Your task to perform on an android device: turn off javascript in the chrome app Image 0: 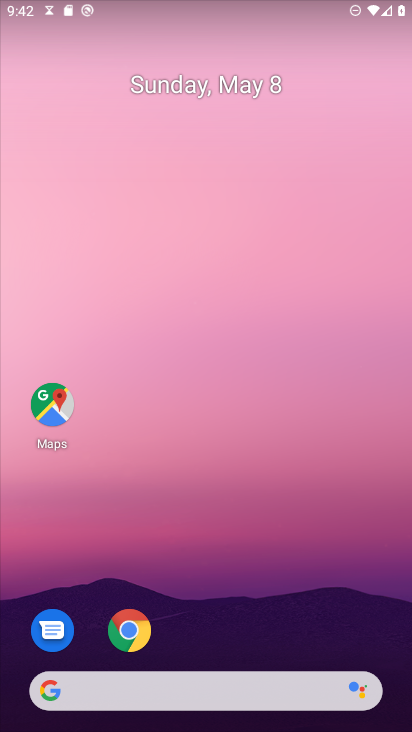
Step 0: drag from (186, 687) to (371, 43)
Your task to perform on an android device: turn off javascript in the chrome app Image 1: 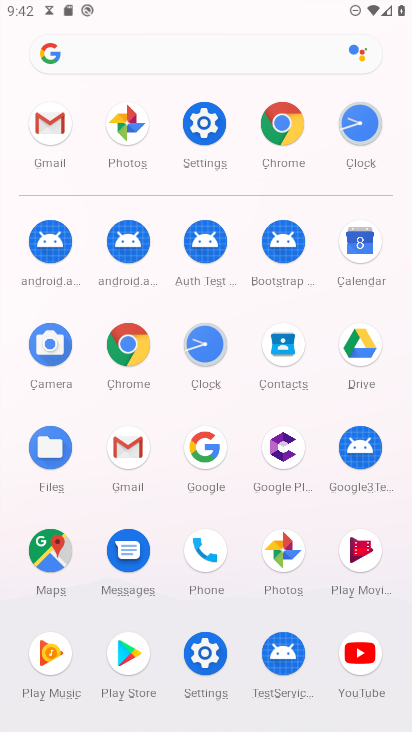
Step 1: click (287, 134)
Your task to perform on an android device: turn off javascript in the chrome app Image 2: 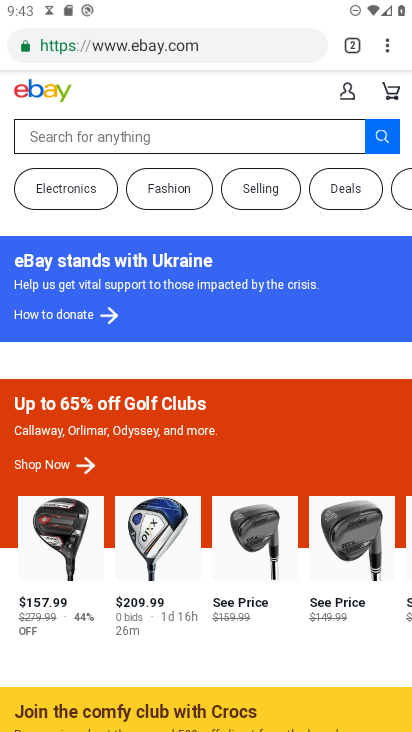
Step 2: drag from (386, 49) to (268, 548)
Your task to perform on an android device: turn off javascript in the chrome app Image 3: 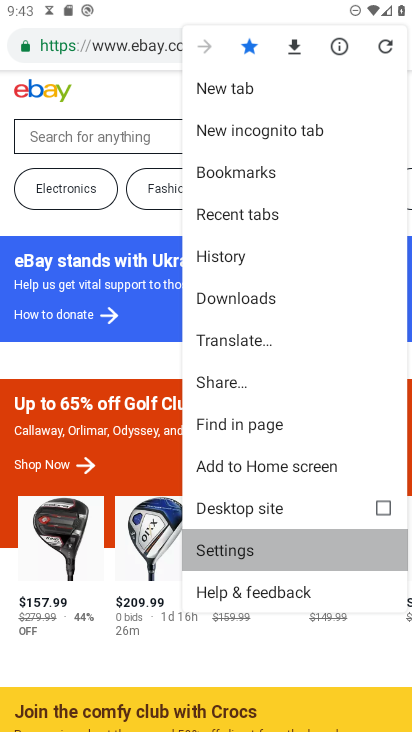
Step 3: click (268, 548)
Your task to perform on an android device: turn off javascript in the chrome app Image 4: 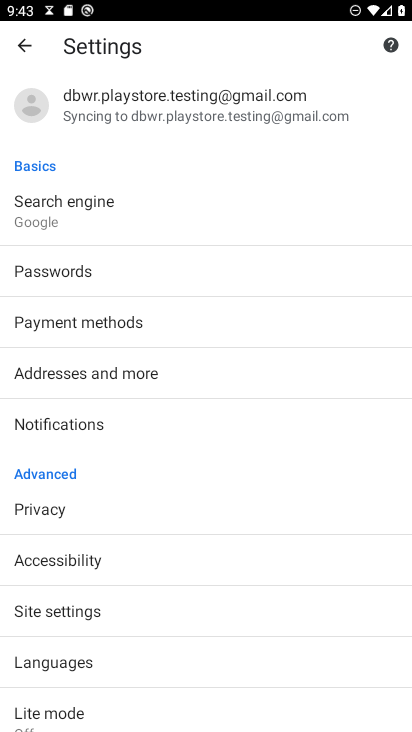
Step 4: click (105, 604)
Your task to perform on an android device: turn off javascript in the chrome app Image 5: 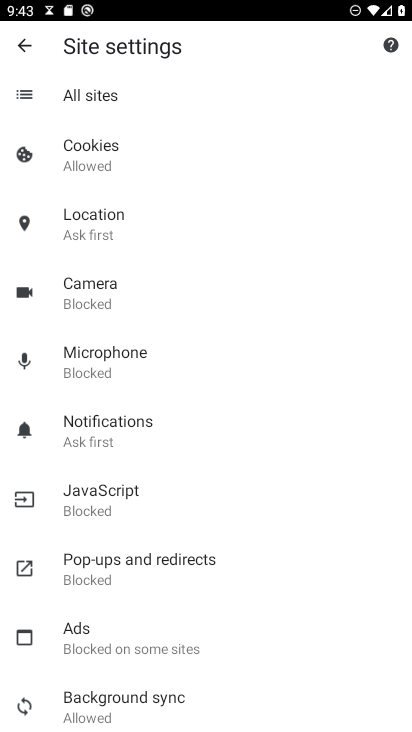
Step 5: click (113, 490)
Your task to perform on an android device: turn off javascript in the chrome app Image 6: 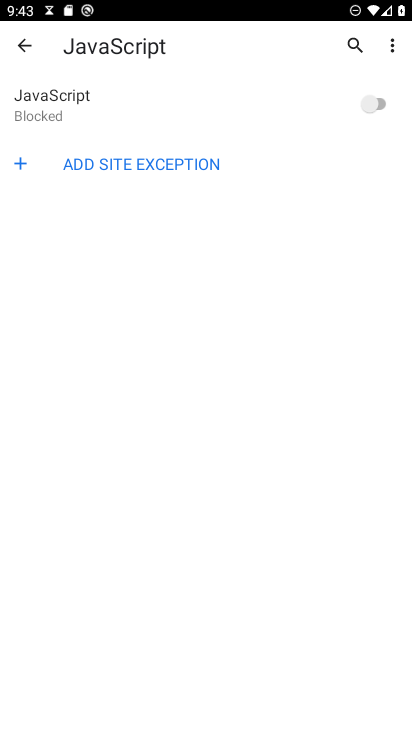
Step 6: task complete